Your task to perform on an android device: check battery use Image 0: 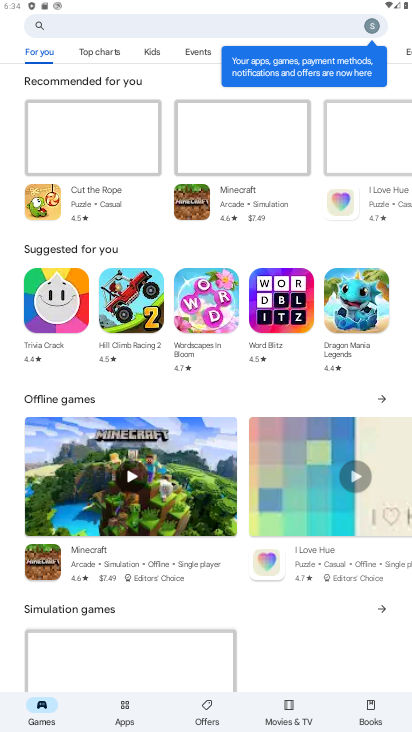
Step 0: press home button
Your task to perform on an android device: check battery use Image 1: 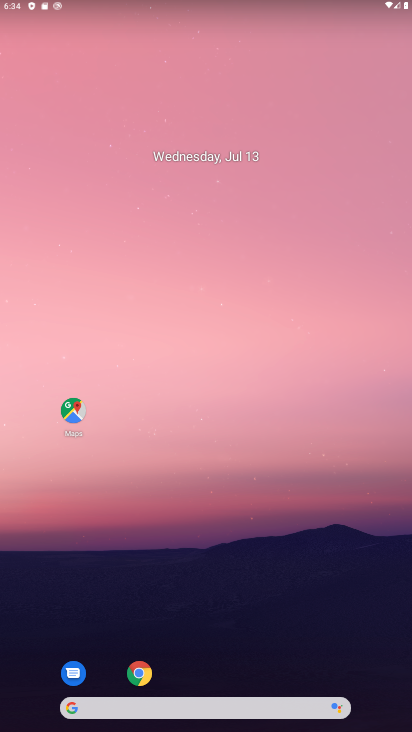
Step 1: drag from (348, 613) to (411, 90)
Your task to perform on an android device: check battery use Image 2: 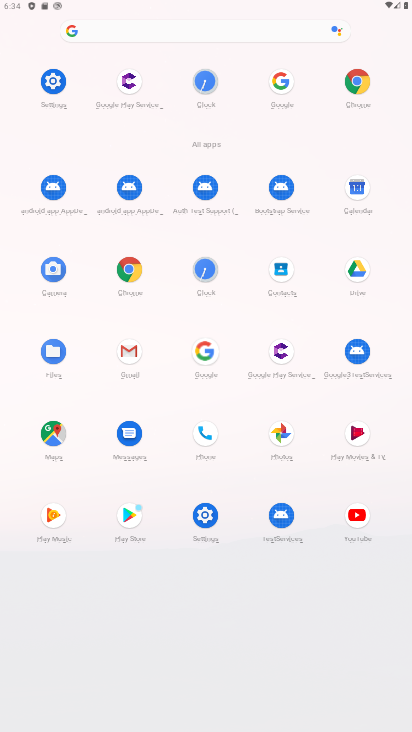
Step 2: click (53, 77)
Your task to perform on an android device: check battery use Image 3: 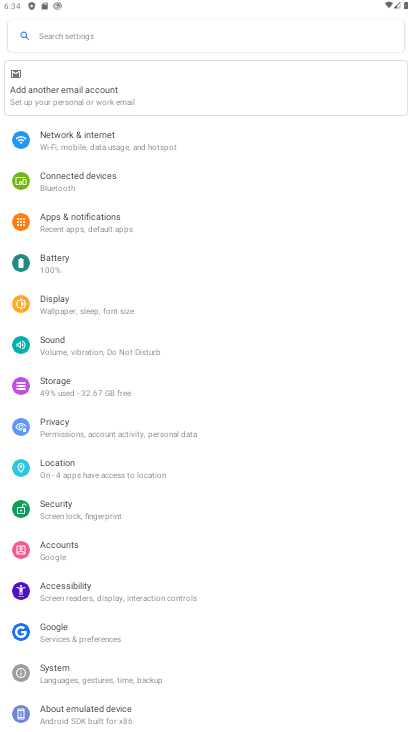
Step 3: click (80, 253)
Your task to perform on an android device: check battery use Image 4: 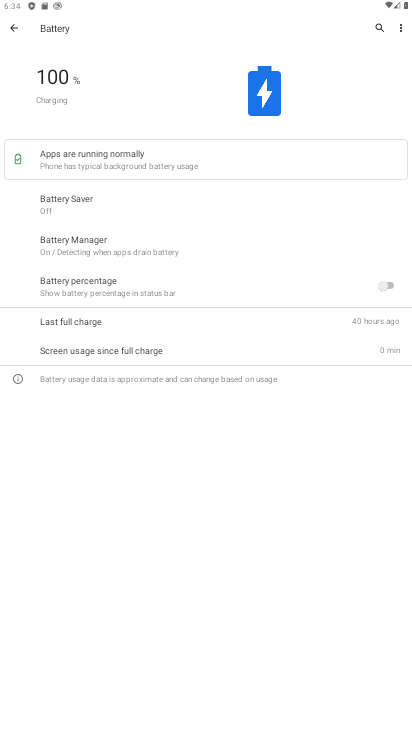
Step 4: task complete